Your task to perform on an android device: Show me the alarms in the clock app Image 0: 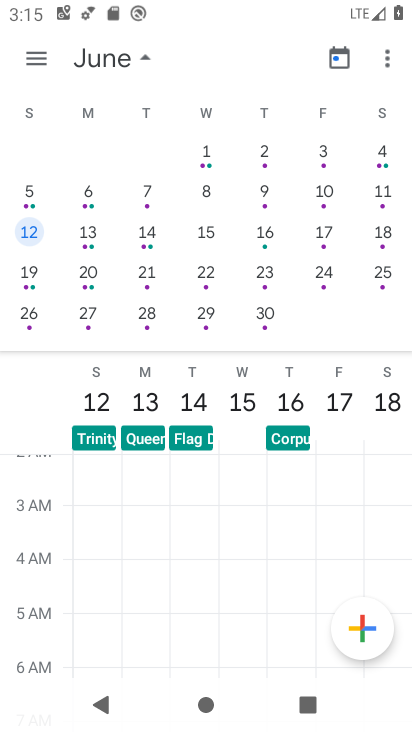
Step 0: press home button
Your task to perform on an android device: Show me the alarms in the clock app Image 1: 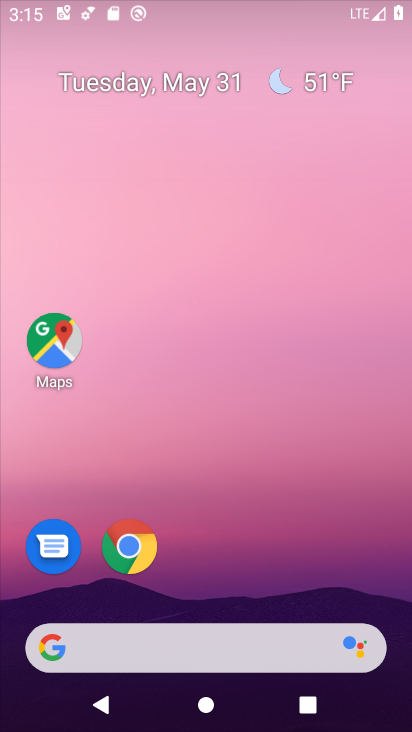
Step 1: drag from (302, 322) to (199, 19)
Your task to perform on an android device: Show me the alarms in the clock app Image 2: 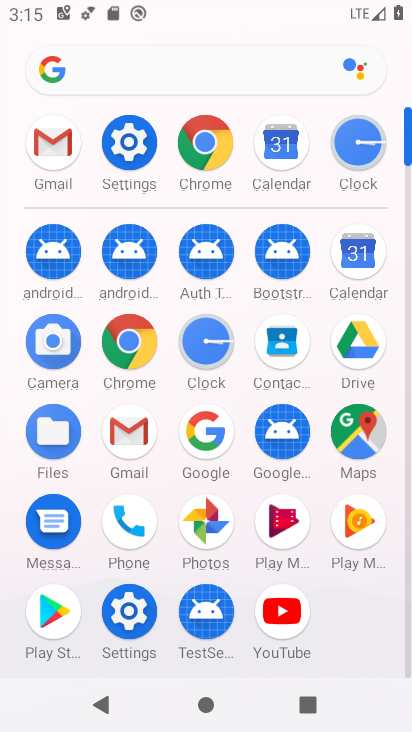
Step 2: click (353, 144)
Your task to perform on an android device: Show me the alarms in the clock app Image 3: 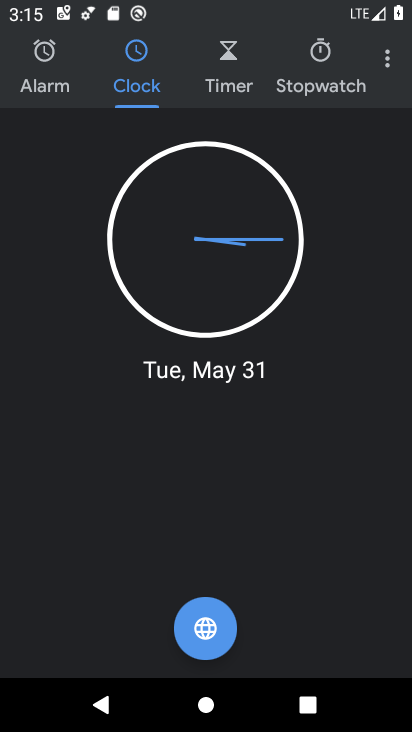
Step 3: click (28, 64)
Your task to perform on an android device: Show me the alarms in the clock app Image 4: 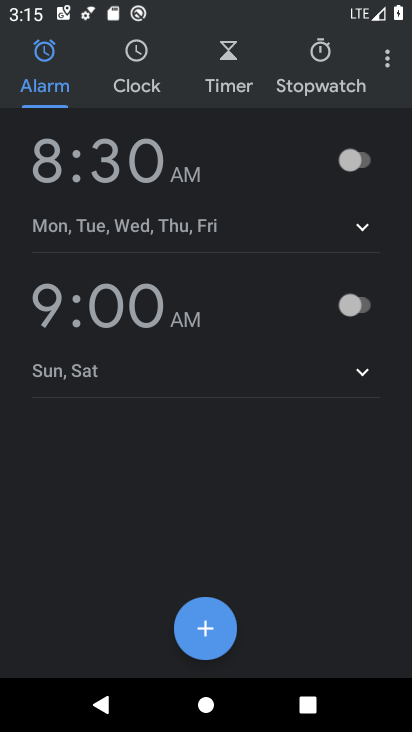
Step 4: task complete